Your task to perform on an android device: turn on showing notifications on the lock screen Image 0: 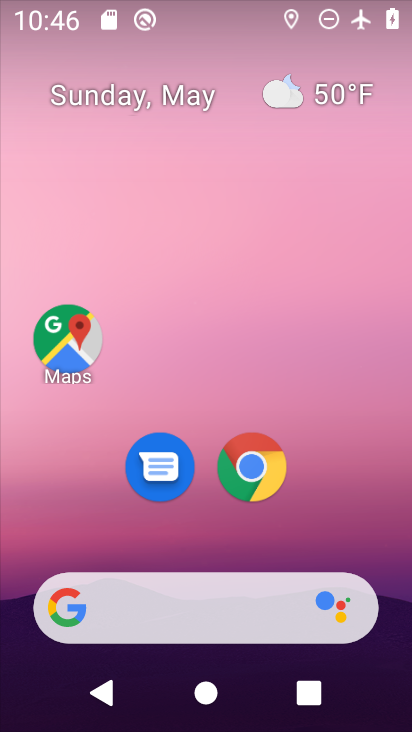
Step 0: drag from (199, 547) to (197, 144)
Your task to perform on an android device: turn on showing notifications on the lock screen Image 1: 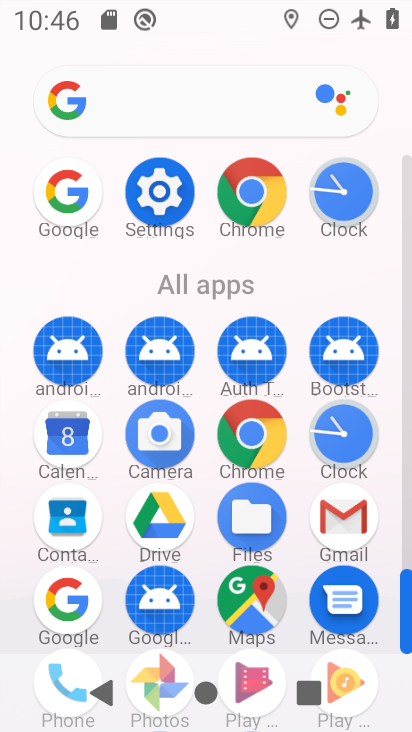
Step 1: click (177, 179)
Your task to perform on an android device: turn on showing notifications on the lock screen Image 2: 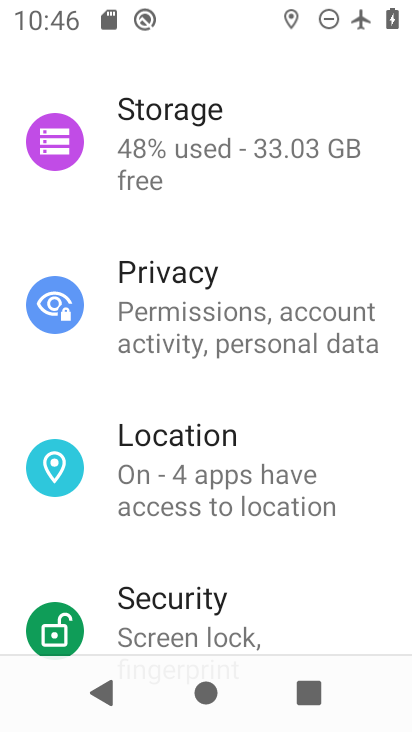
Step 2: drag from (185, 218) to (198, 588)
Your task to perform on an android device: turn on showing notifications on the lock screen Image 3: 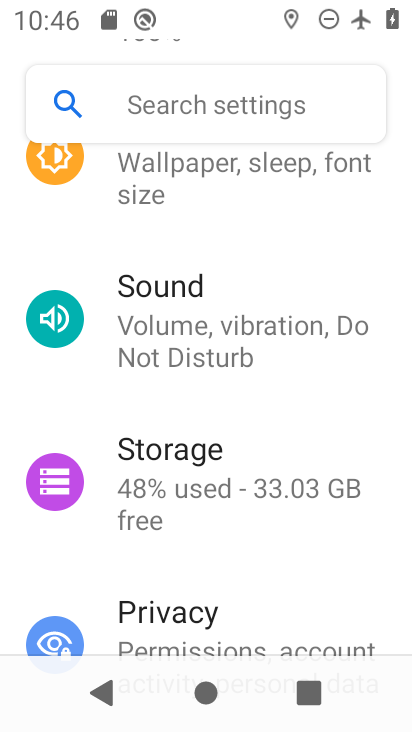
Step 3: drag from (288, 251) to (290, 583)
Your task to perform on an android device: turn on showing notifications on the lock screen Image 4: 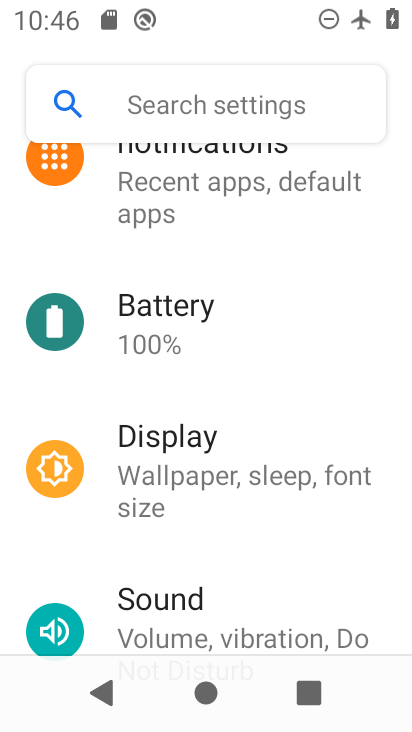
Step 4: drag from (292, 222) to (285, 513)
Your task to perform on an android device: turn on showing notifications on the lock screen Image 5: 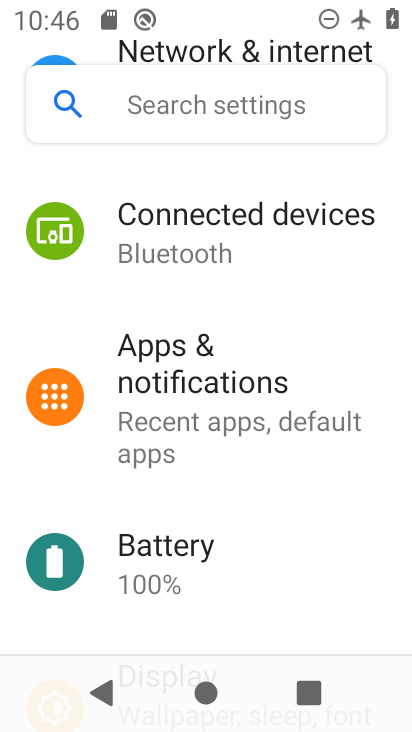
Step 5: click (204, 412)
Your task to perform on an android device: turn on showing notifications on the lock screen Image 6: 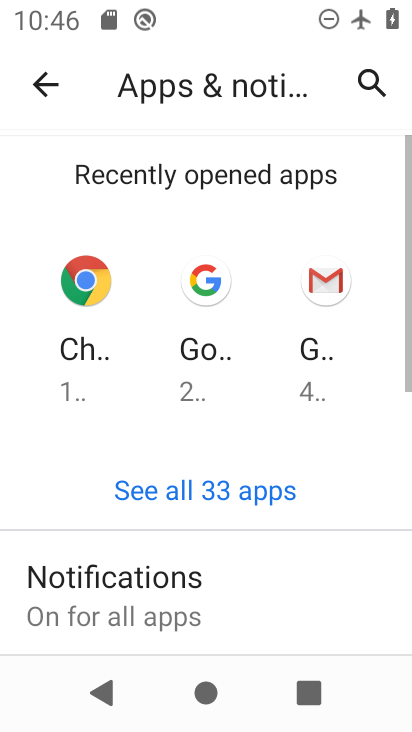
Step 6: drag from (220, 572) to (205, 241)
Your task to perform on an android device: turn on showing notifications on the lock screen Image 7: 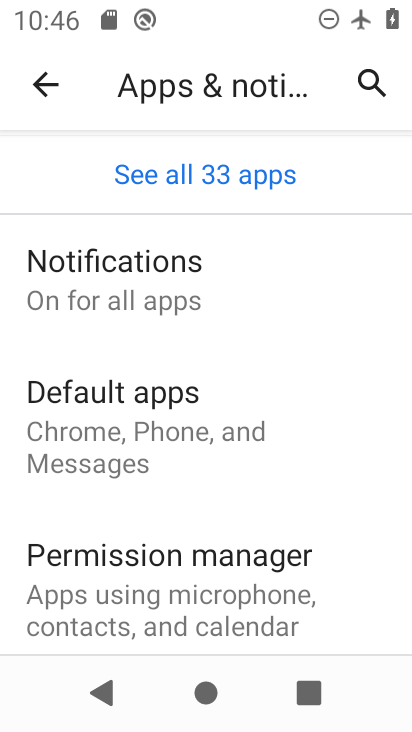
Step 7: drag from (221, 558) to (241, 260)
Your task to perform on an android device: turn on showing notifications on the lock screen Image 8: 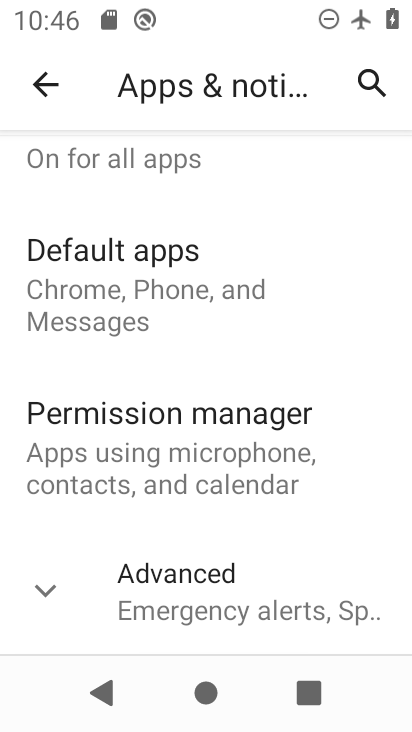
Step 8: drag from (218, 232) to (212, 505)
Your task to perform on an android device: turn on showing notifications on the lock screen Image 9: 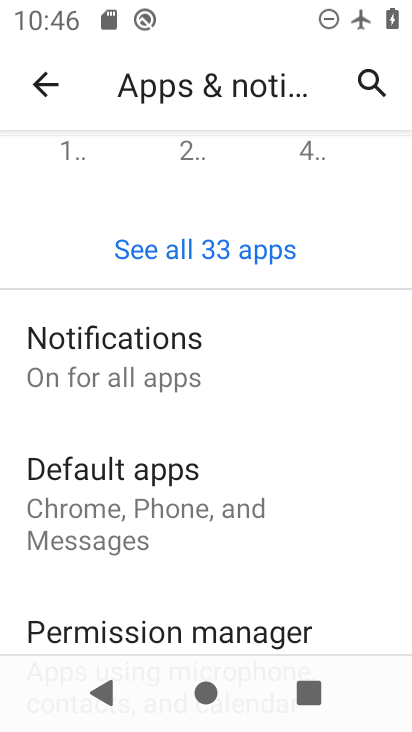
Step 9: click (188, 362)
Your task to perform on an android device: turn on showing notifications on the lock screen Image 10: 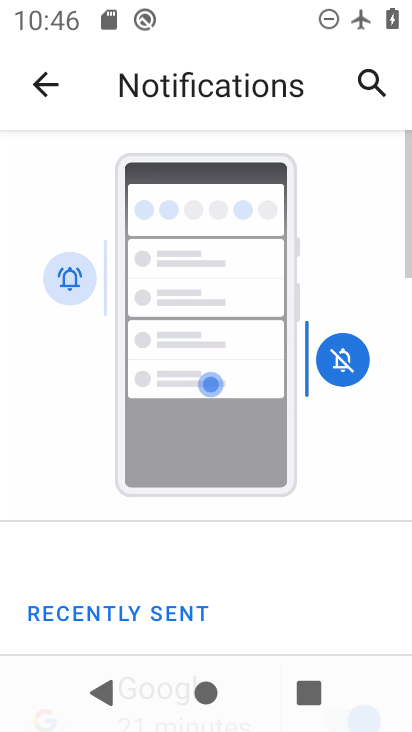
Step 10: drag from (207, 559) to (195, 104)
Your task to perform on an android device: turn on showing notifications on the lock screen Image 11: 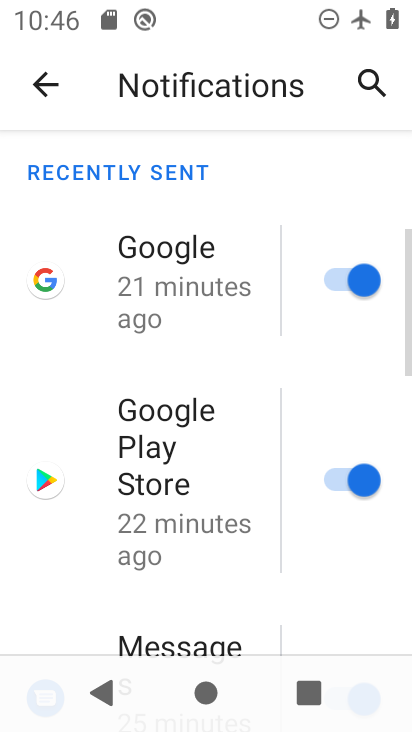
Step 11: drag from (181, 538) to (185, 207)
Your task to perform on an android device: turn on showing notifications on the lock screen Image 12: 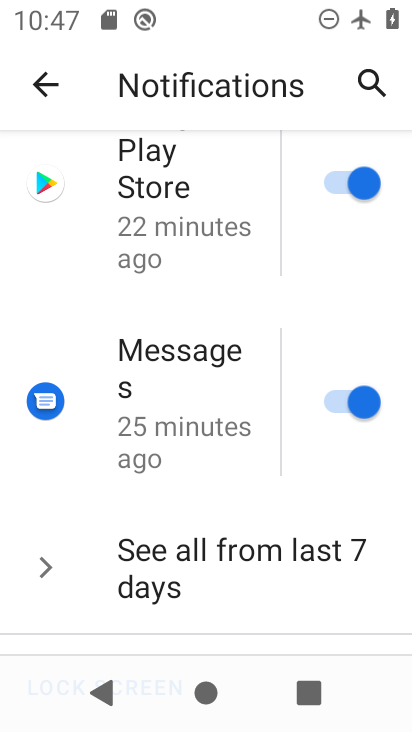
Step 12: drag from (213, 533) to (229, 271)
Your task to perform on an android device: turn on showing notifications on the lock screen Image 13: 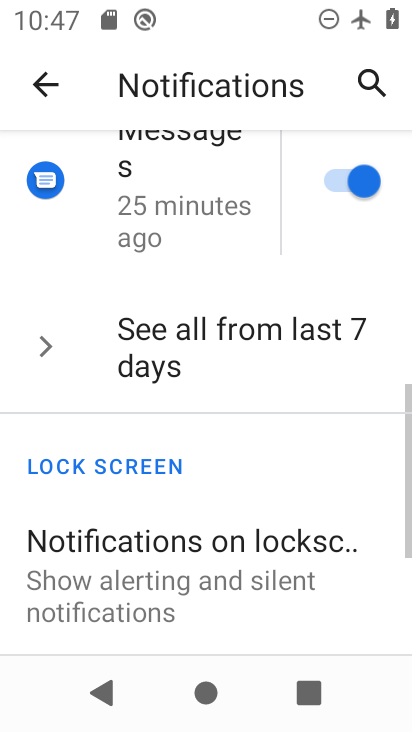
Step 13: click (229, 654)
Your task to perform on an android device: turn on showing notifications on the lock screen Image 14: 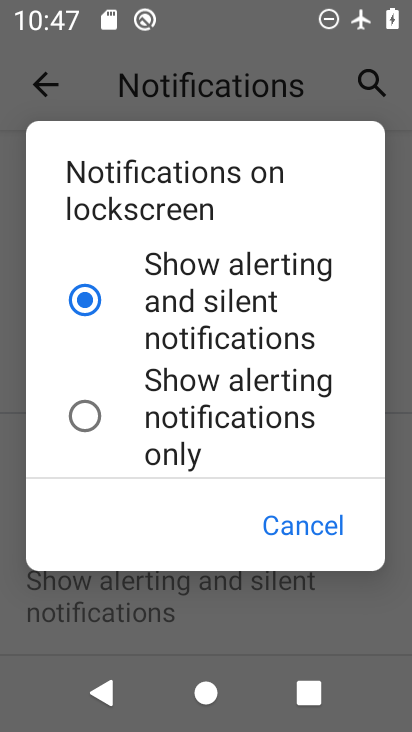
Step 14: task complete